Your task to perform on an android device: Open Reddit.com Image 0: 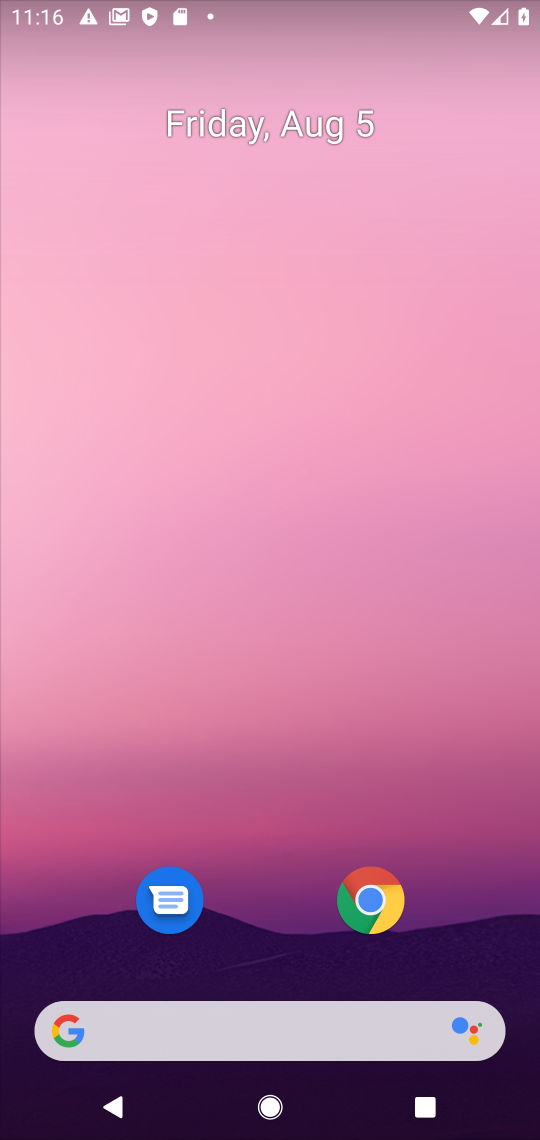
Step 0: click (375, 900)
Your task to perform on an android device: Open Reddit.com Image 1: 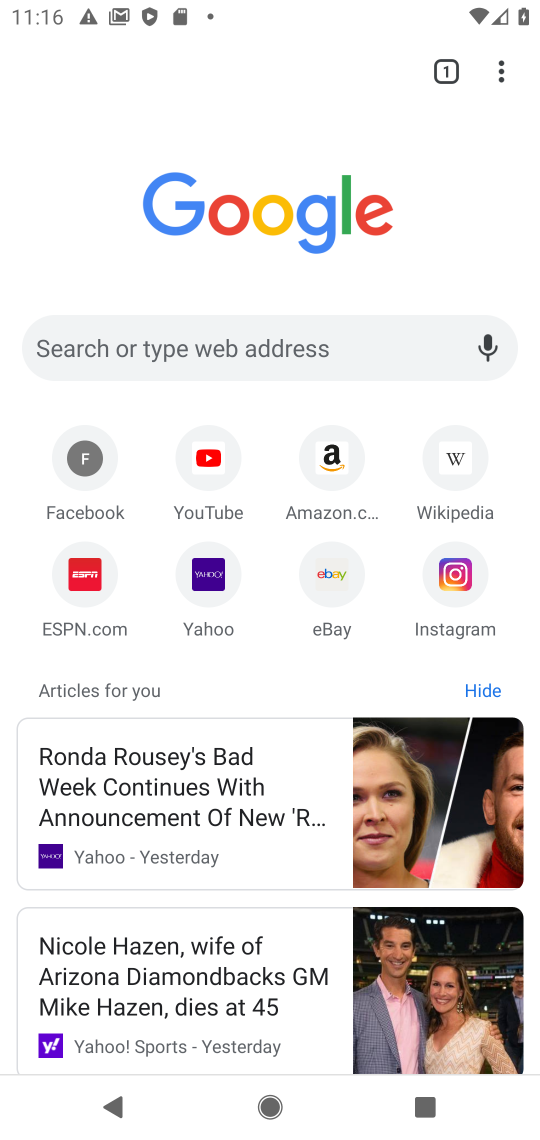
Step 1: click (295, 362)
Your task to perform on an android device: Open Reddit.com Image 2: 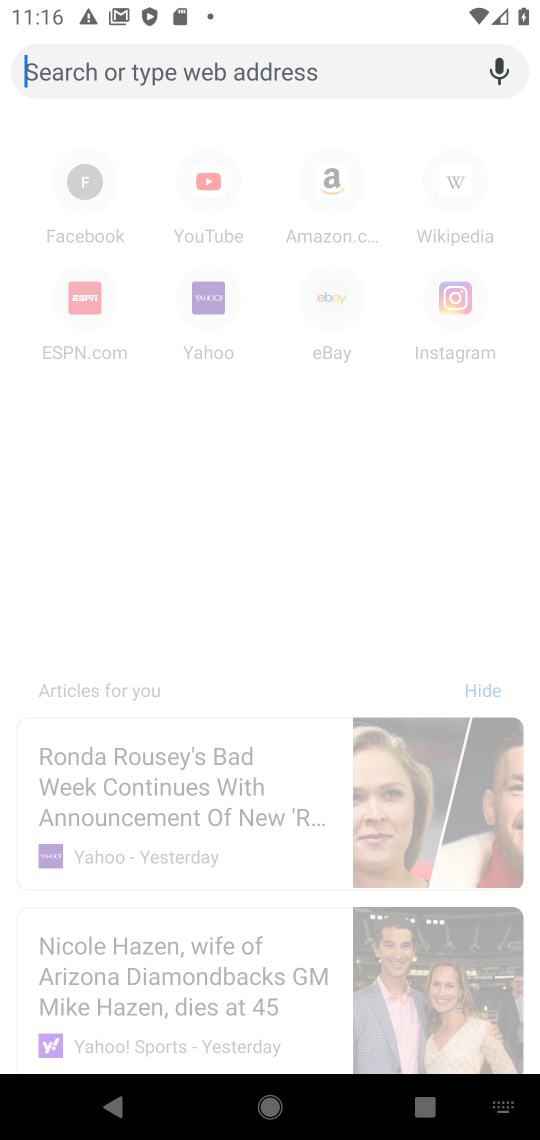
Step 2: type "Reddit.com"
Your task to perform on an android device: Open Reddit.com Image 3: 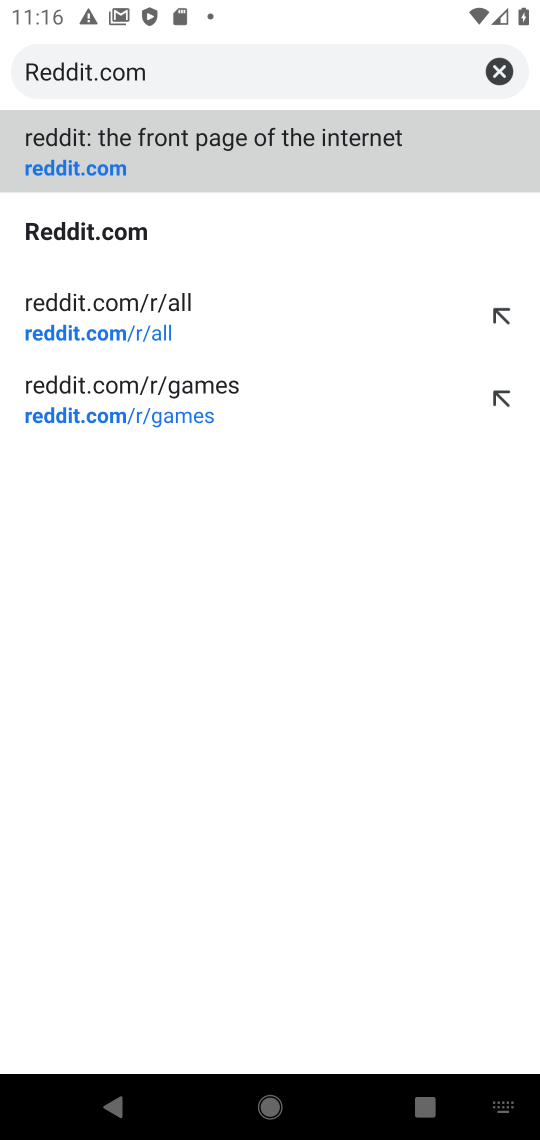
Step 3: click (102, 142)
Your task to perform on an android device: Open Reddit.com Image 4: 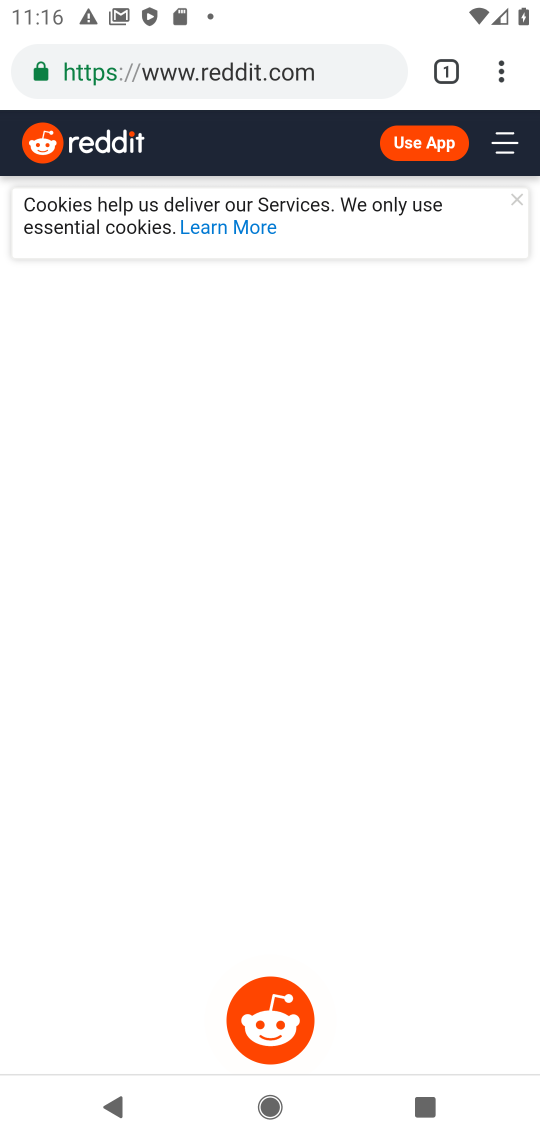
Step 4: task complete